Your task to perform on an android device: find photos in the google photos app Image 0: 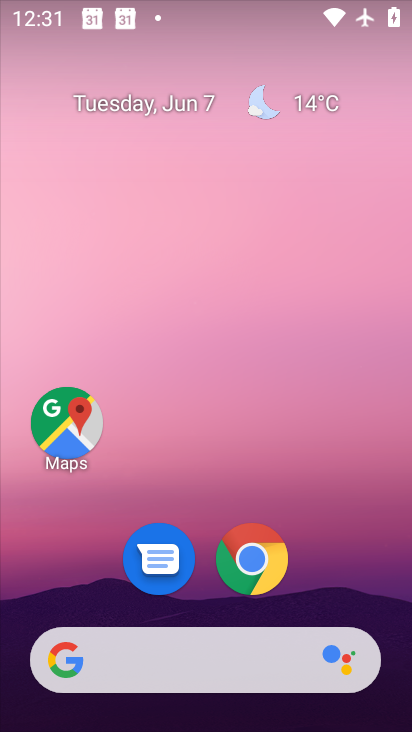
Step 0: drag from (391, 613) to (347, 86)
Your task to perform on an android device: find photos in the google photos app Image 1: 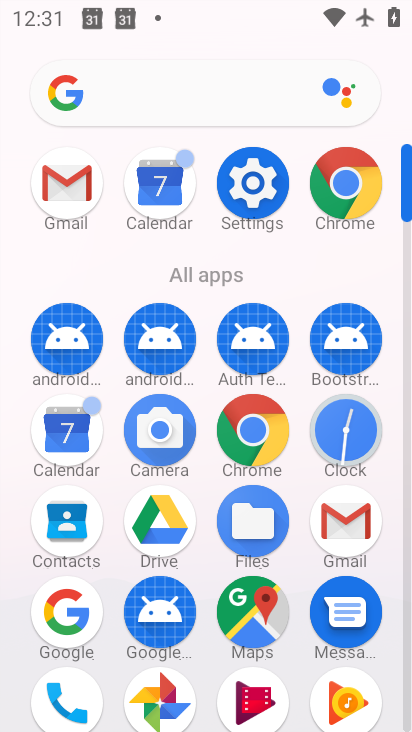
Step 1: click (408, 671)
Your task to perform on an android device: find photos in the google photos app Image 2: 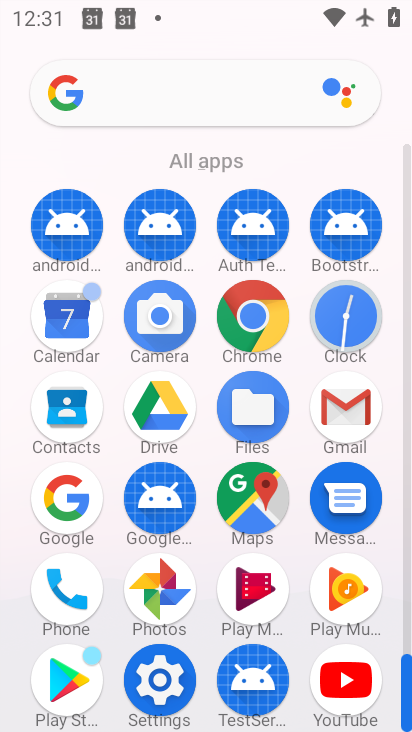
Step 2: click (163, 589)
Your task to perform on an android device: find photos in the google photos app Image 3: 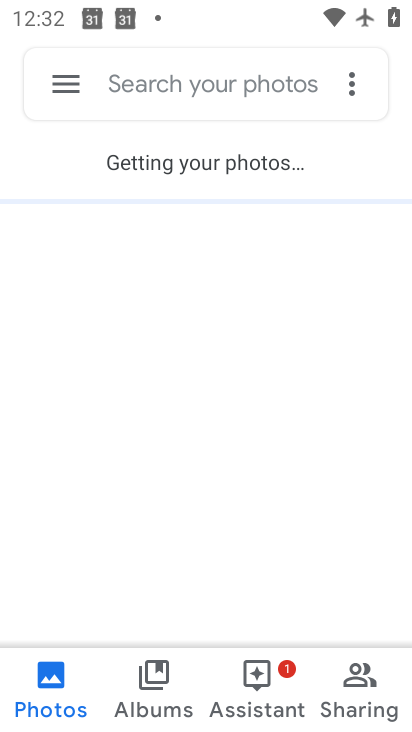
Step 3: task complete